Your task to perform on an android device: turn off location history Image 0: 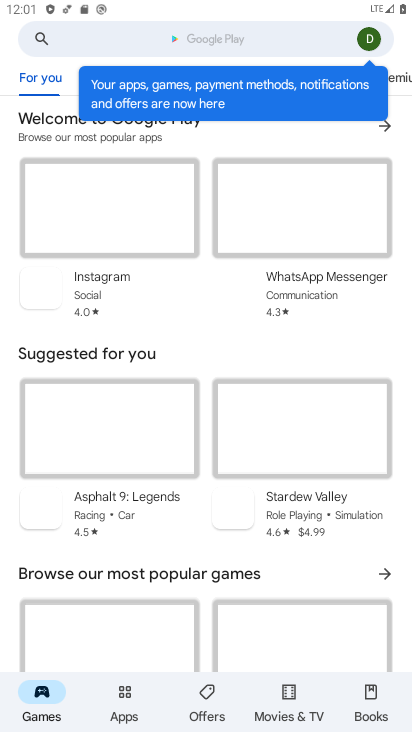
Step 0: press home button
Your task to perform on an android device: turn off location history Image 1: 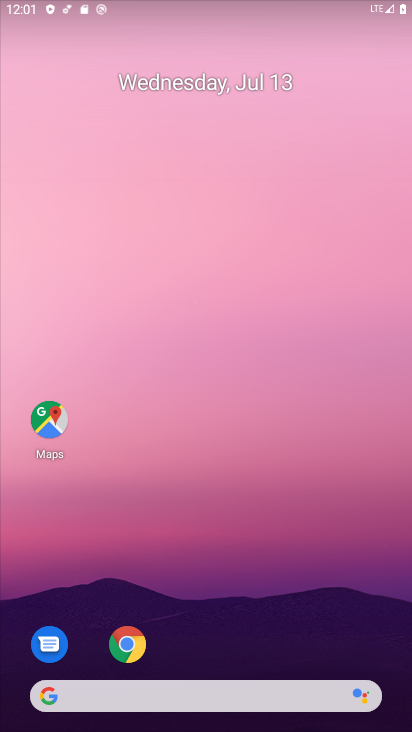
Step 1: drag from (221, 547) to (264, 21)
Your task to perform on an android device: turn off location history Image 2: 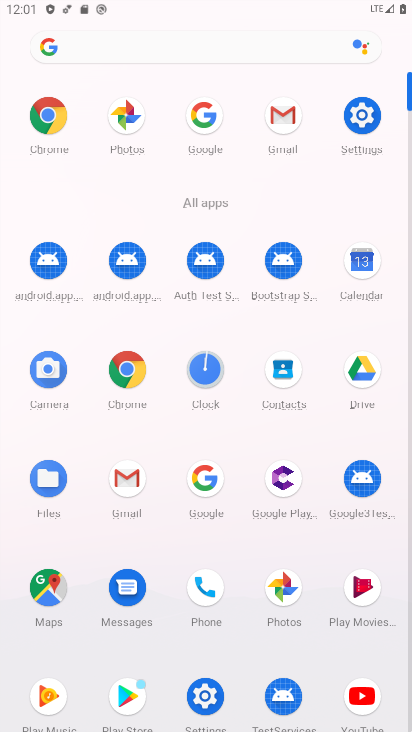
Step 2: click (361, 111)
Your task to perform on an android device: turn off location history Image 3: 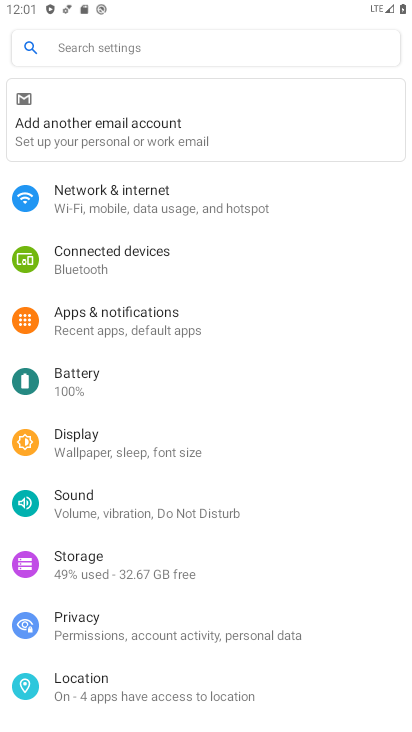
Step 3: click (86, 680)
Your task to perform on an android device: turn off location history Image 4: 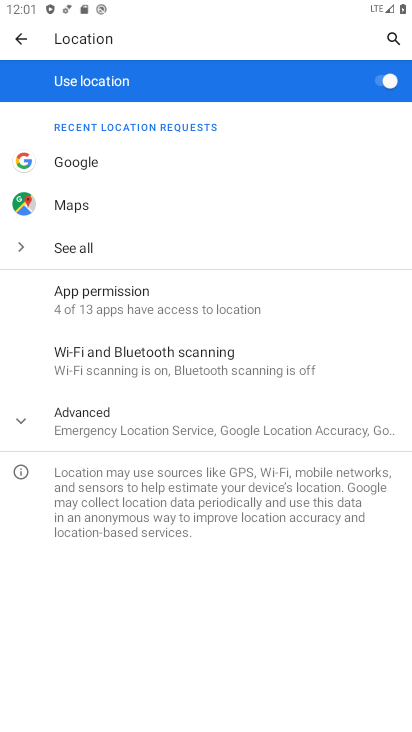
Step 4: click (54, 424)
Your task to perform on an android device: turn off location history Image 5: 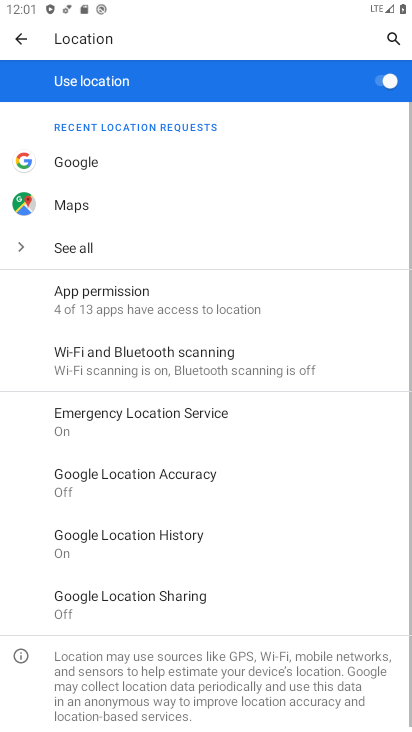
Step 5: click (191, 538)
Your task to perform on an android device: turn off location history Image 6: 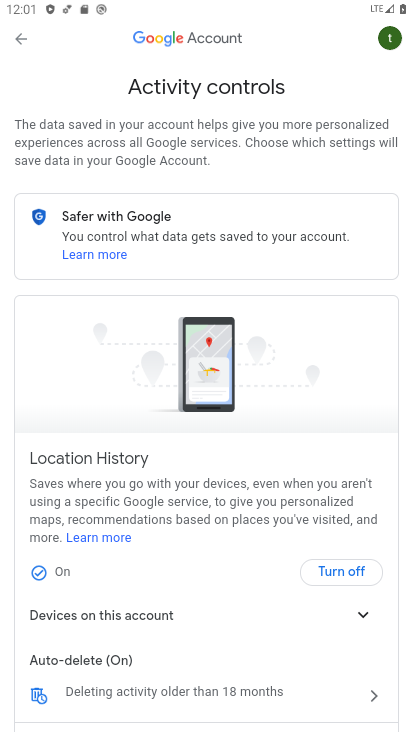
Step 6: drag from (205, 591) to (260, 195)
Your task to perform on an android device: turn off location history Image 7: 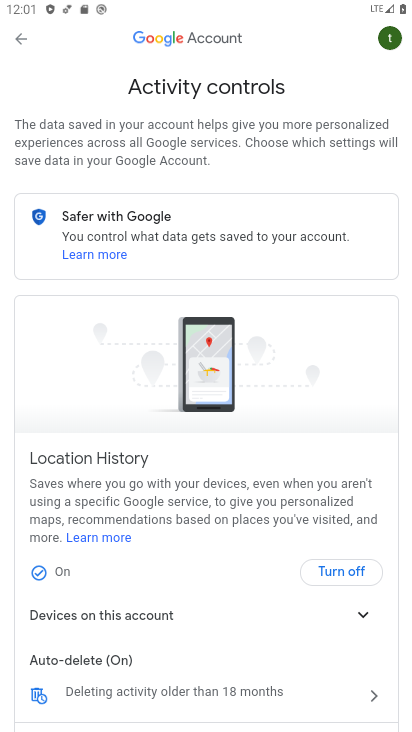
Step 7: click (341, 569)
Your task to perform on an android device: turn off location history Image 8: 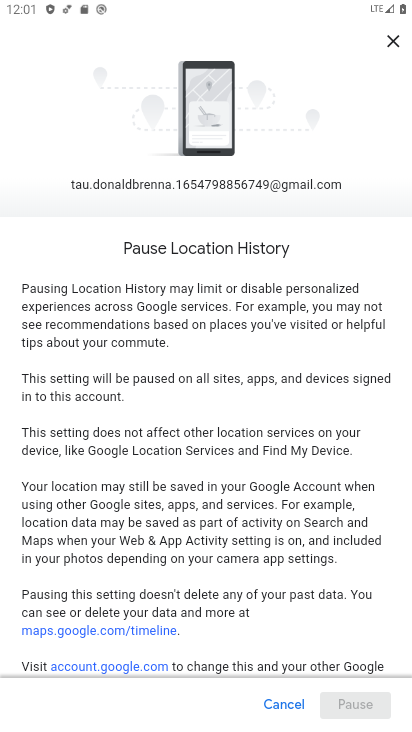
Step 8: drag from (346, 634) to (324, 39)
Your task to perform on an android device: turn off location history Image 9: 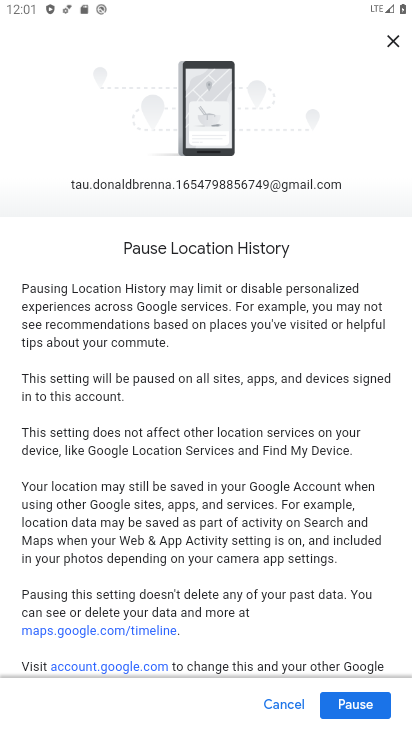
Step 9: click (363, 714)
Your task to perform on an android device: turn off location history Image 10: 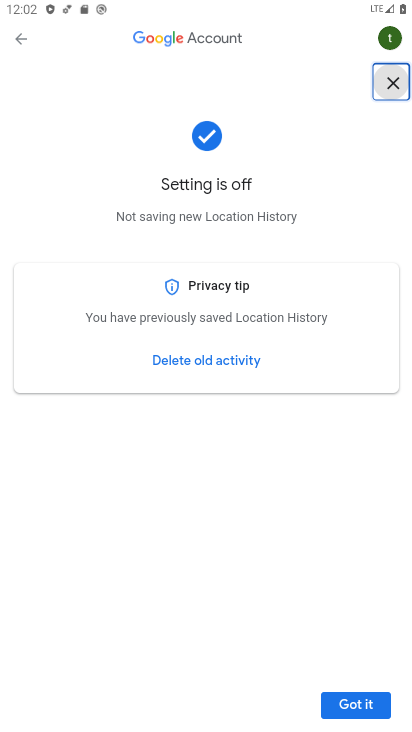
Step 10: click (354, 708)
Your task to perform on an android device: turn off location history Image 11: 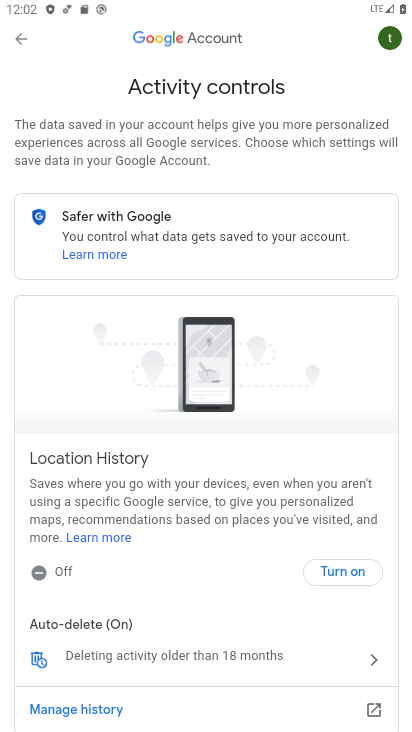
Step 11: task complete